Your task to perform on an android device: delete a single message in the gmail app Image 0: 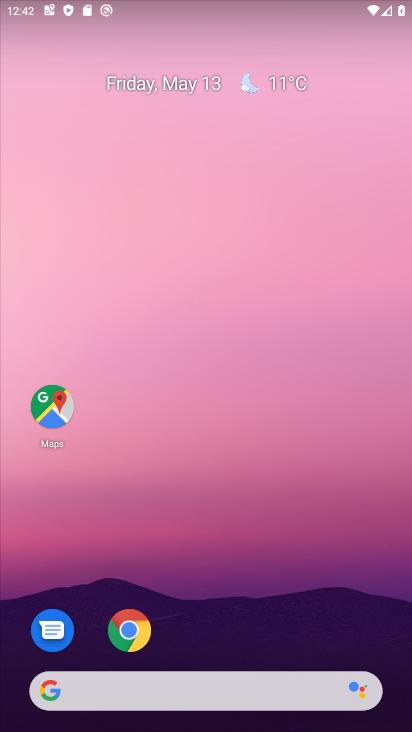
Step 0: drag from (354, 617) to (357, 4)
Your task to perform on an android device: delete a single message in the gmail app Image 1: 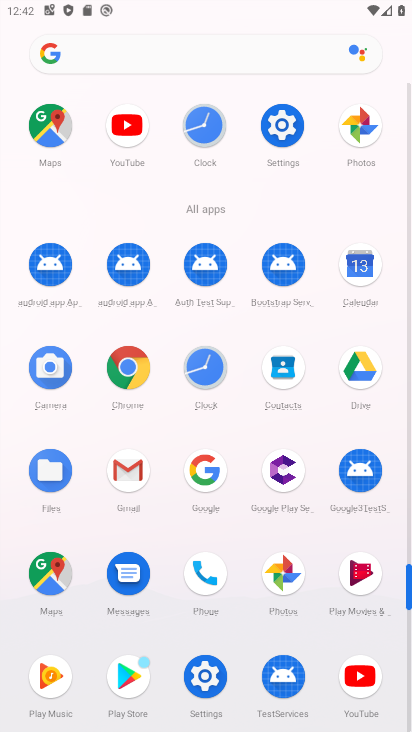
Step 1: click (131, 482)
Your task to perform on an android device: delete a single message in the gmail app Image 2: 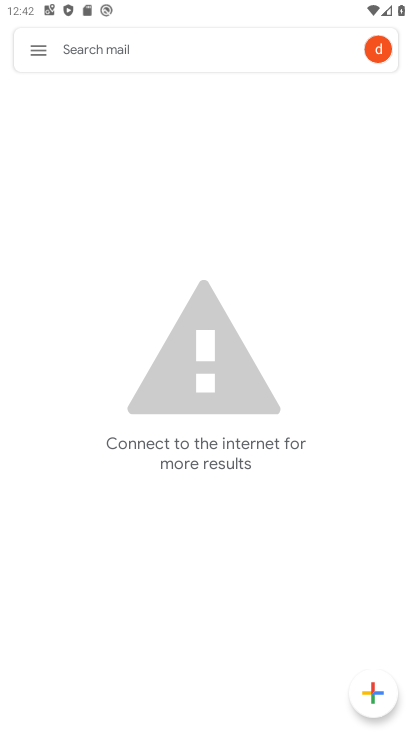
Step 2: click (38, 55)
Your task to perform on an android device: delete a single message in the gmail app Image 3: 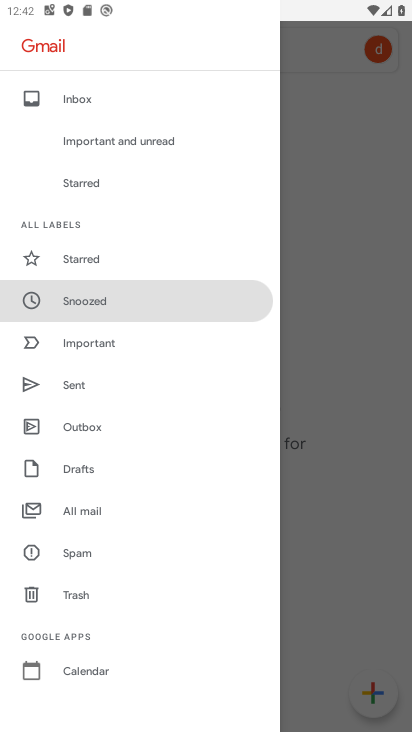
Step 3: click (86, 505)
Your task to perform on an android device: delete a single message in the gmail app Image 4: 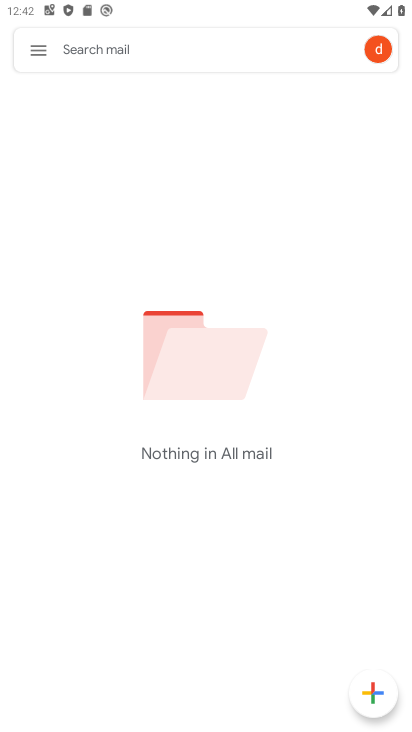
Step 4: task complete